Your task to perform on an android device: What's on my calendar today? Image 0: 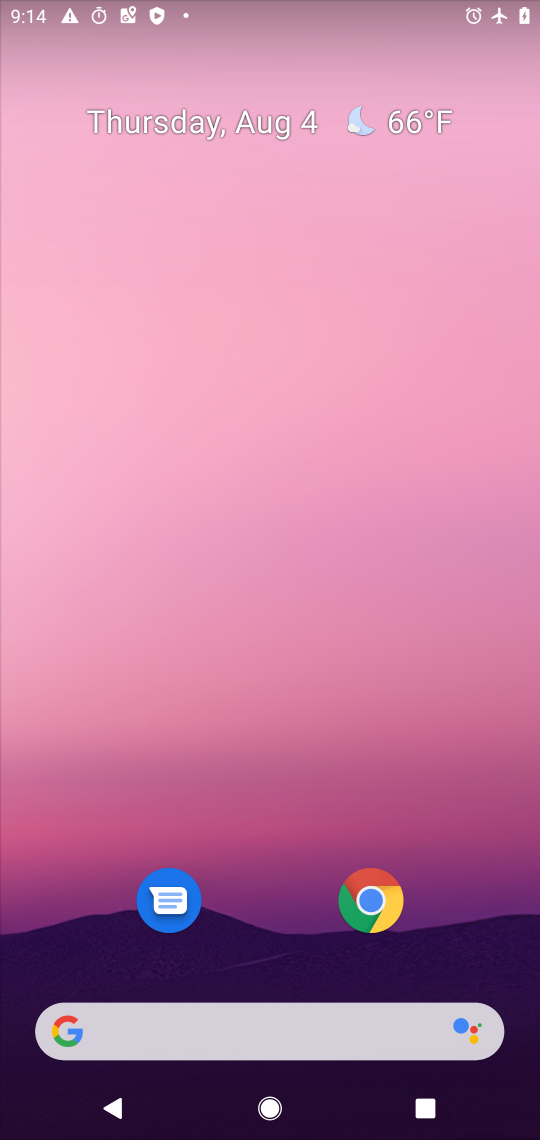
Step 0: drag from (240, 1033) to (196, 138)
Your task to perform on an android device: What's on my calendar today? Image 1: 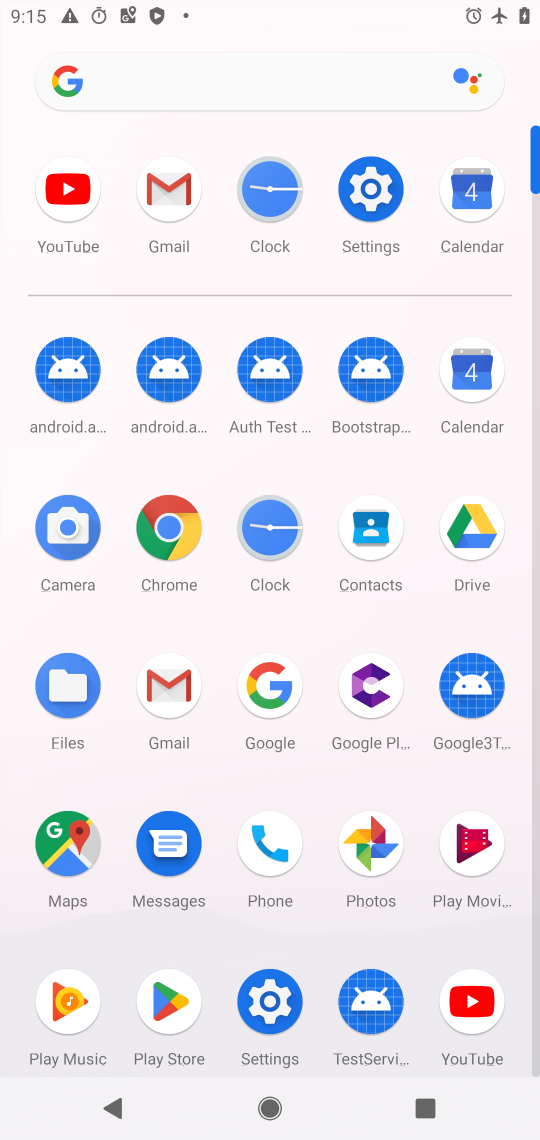
Step 1: click (472, 371)
Your task to perform on an android device: What's on my calendar today? Image 2: 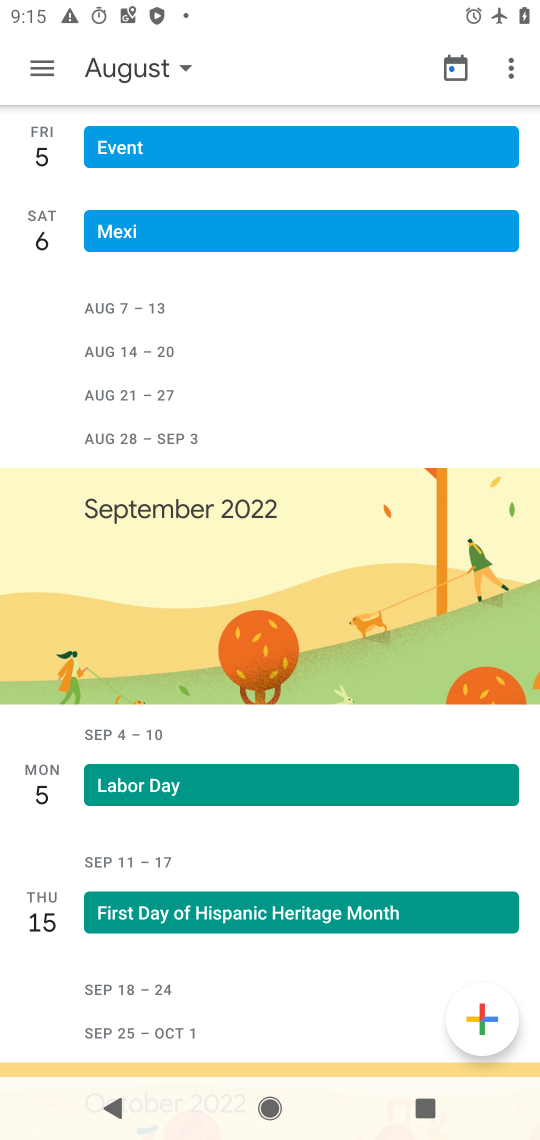
Step 2: click (456, 65)
Your task to perform on an android device: What's on my calendar today? Image 3: 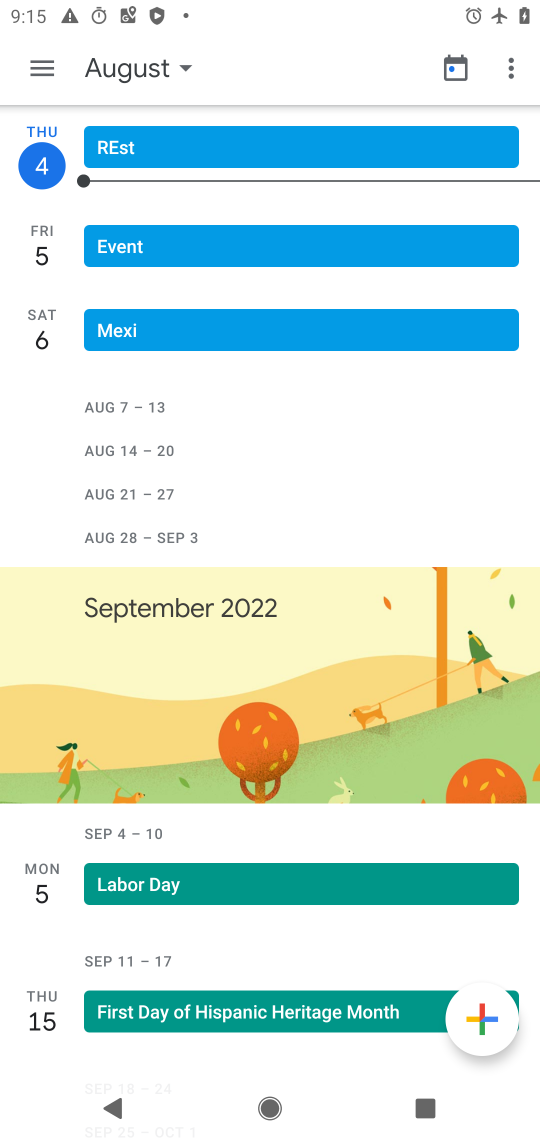
Step 3: click (185, 69)
Your task to perform on an android device: What's on my calendar today? Image 4: 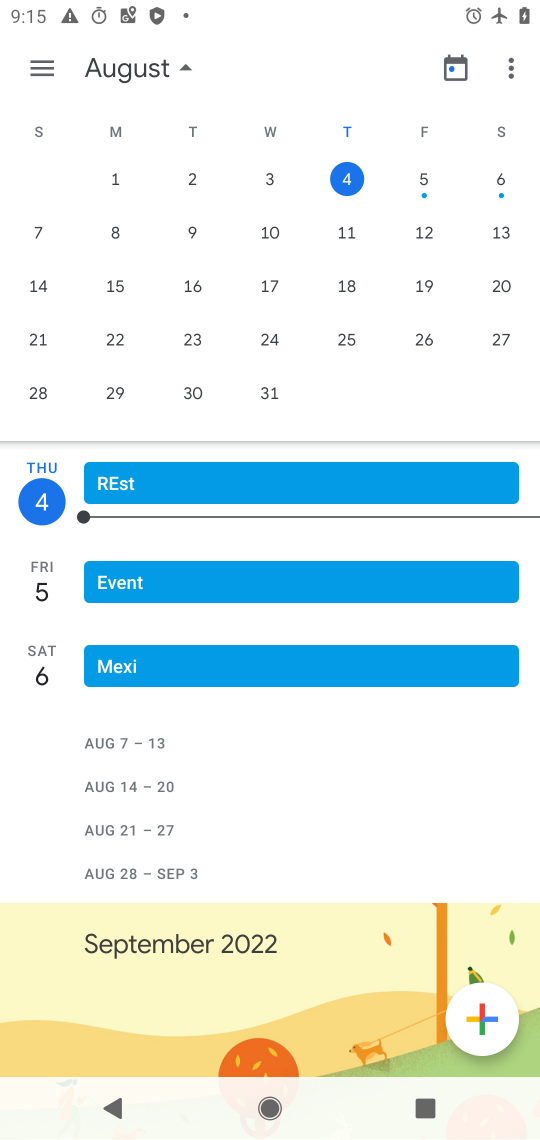
Step 4: click (343, 175)
Your task to perform on an android device: What's on my calendar today? Image 5: 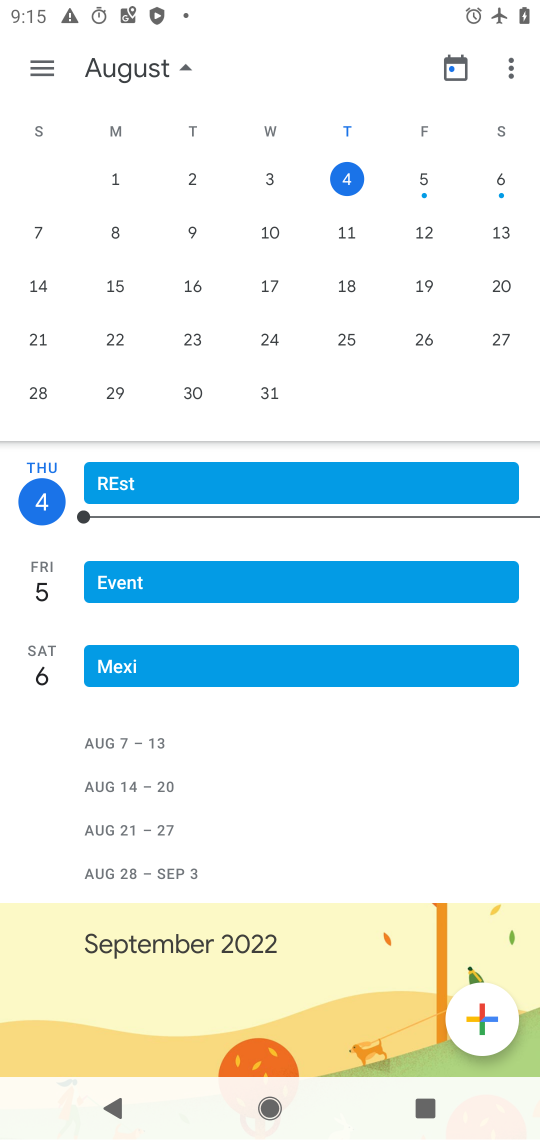
Step 5: click (43, 63)
Your task to perform on an android device: What's on my calendar today? Image 6: 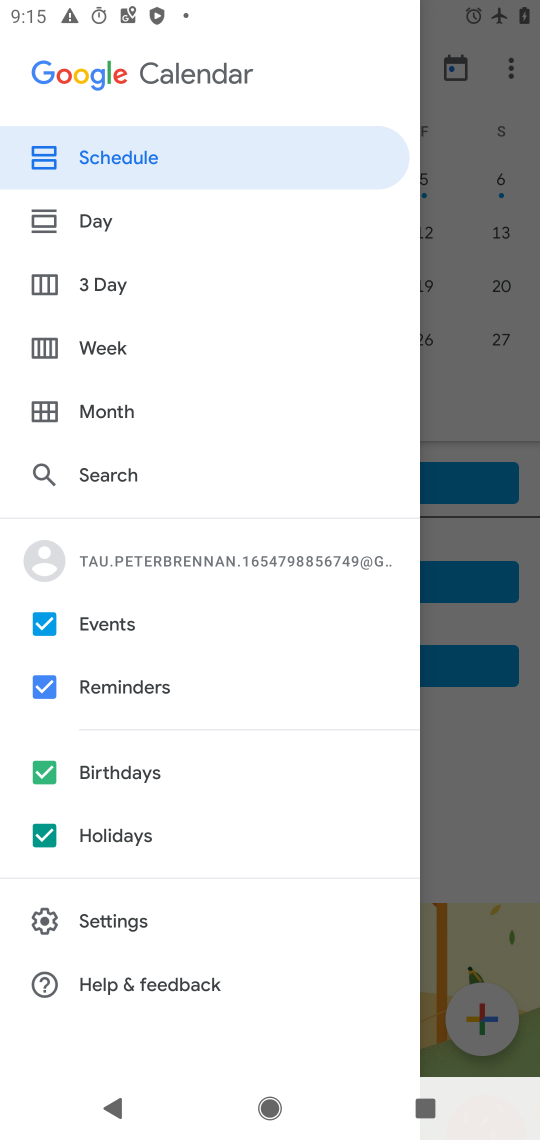
Step 6: click (113, 207)
Your task to perform on an android device: What's on my calendar today? Image 7: 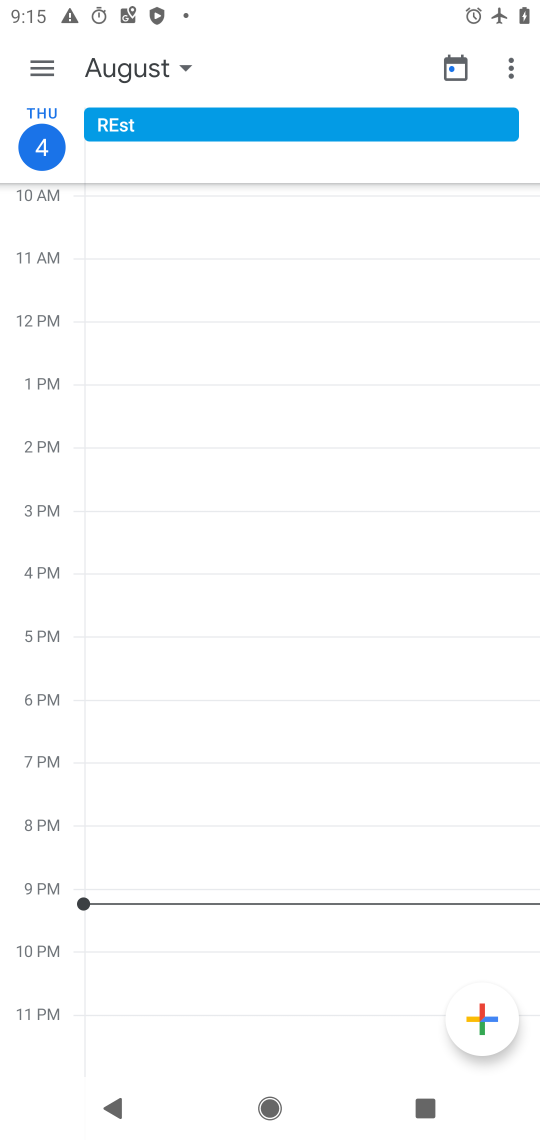
Step 7: task complete